Your task to perform on an android device: Set an alarm for 2pm Image 0: 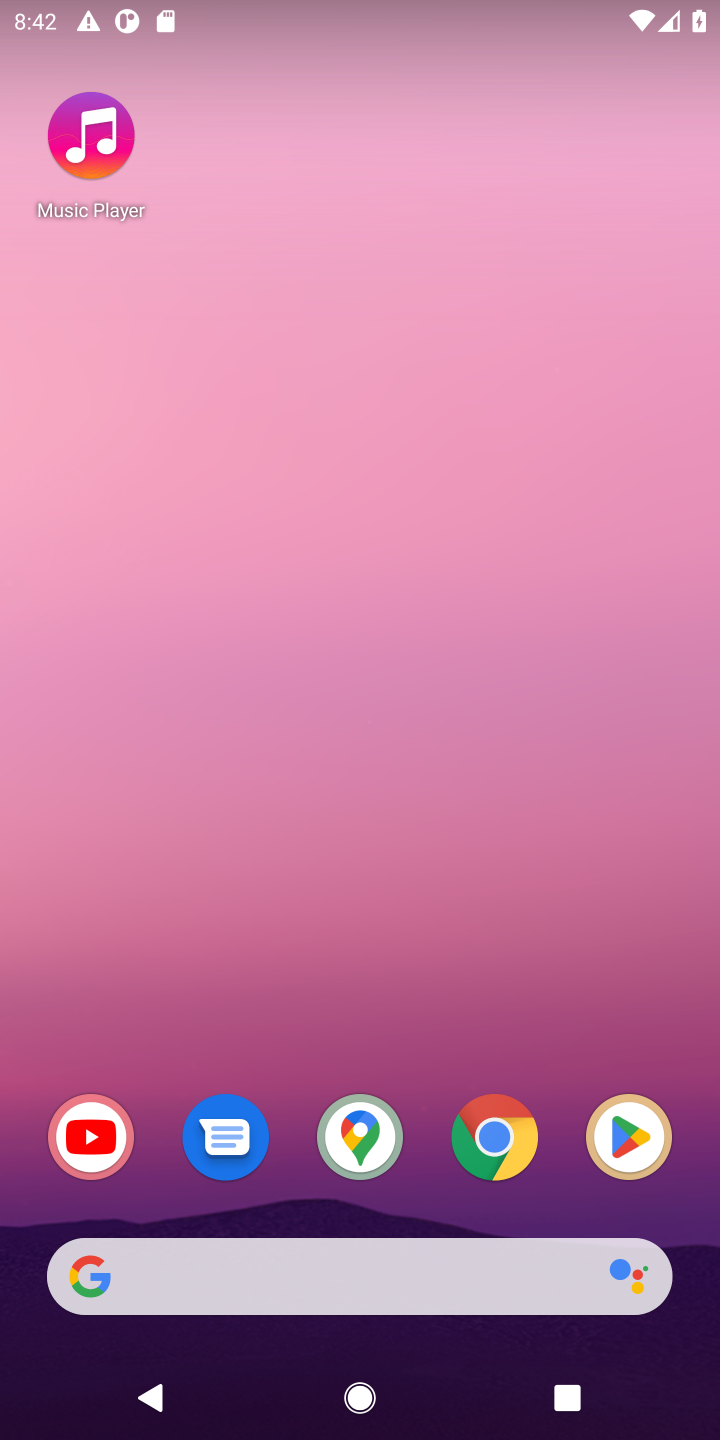
Step 0: drag from (578, 1210) to (506, 151)
Your task to perform on an android device: Set an alarm for 2pm Image 1: 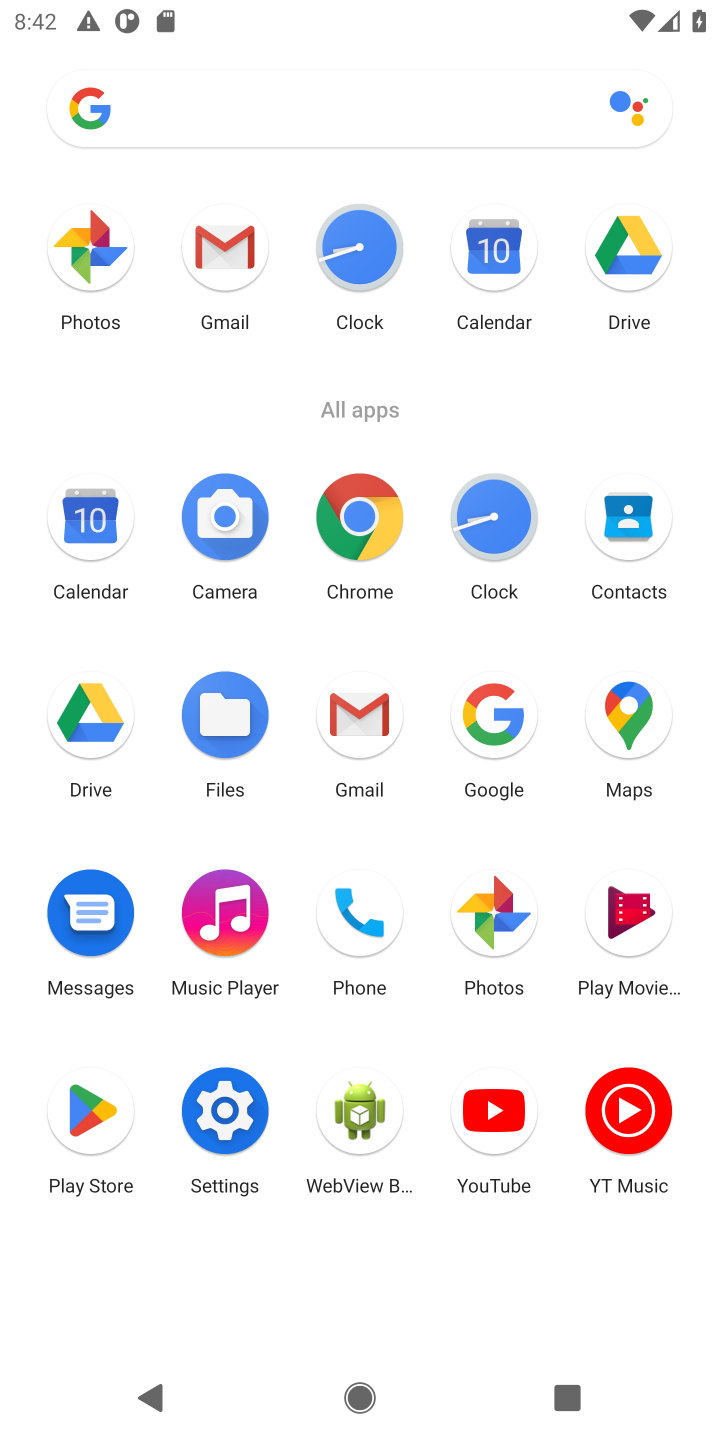
Step 1: click (487, 501)
Your task to perform on an android device: Set an alarm for 2pm Image 2: 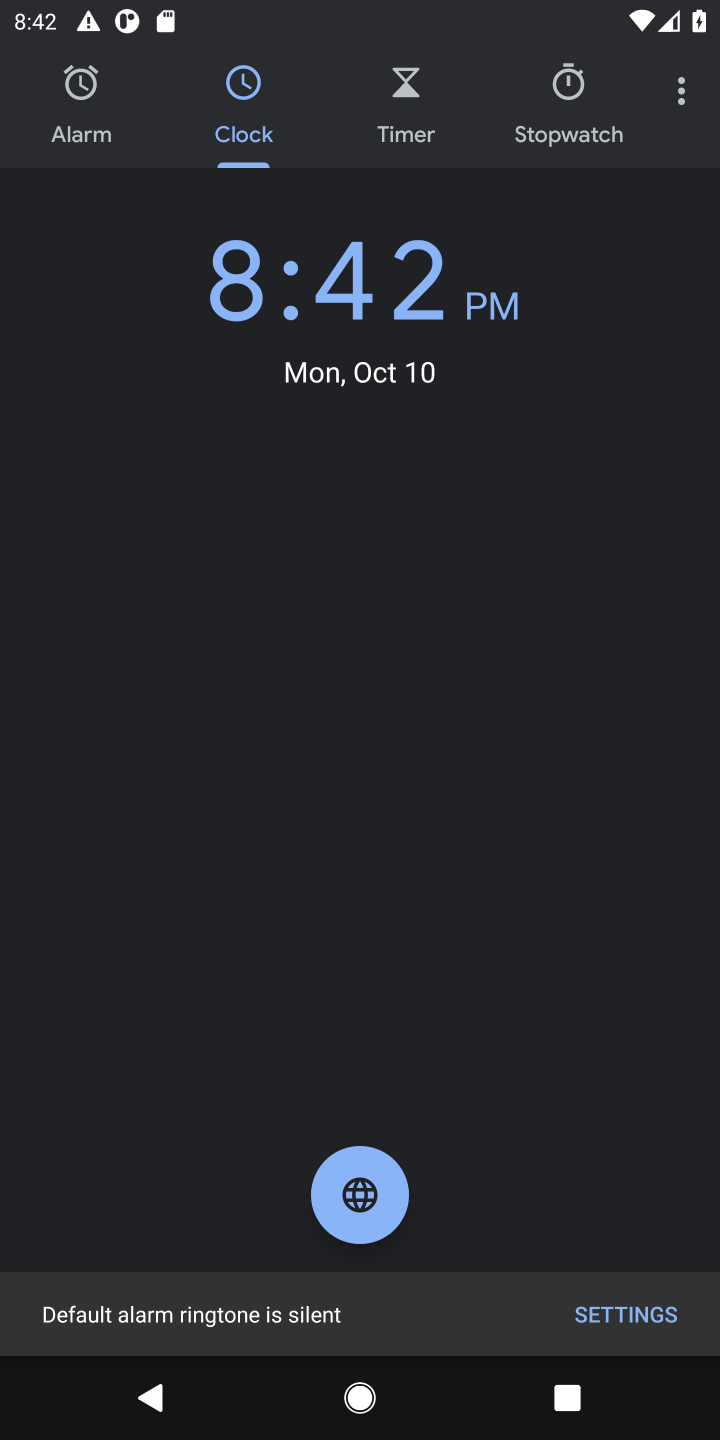
Step 2: click (84, 102)
Your task to perform on an android device: Set an alarm for 2pm Image 3: 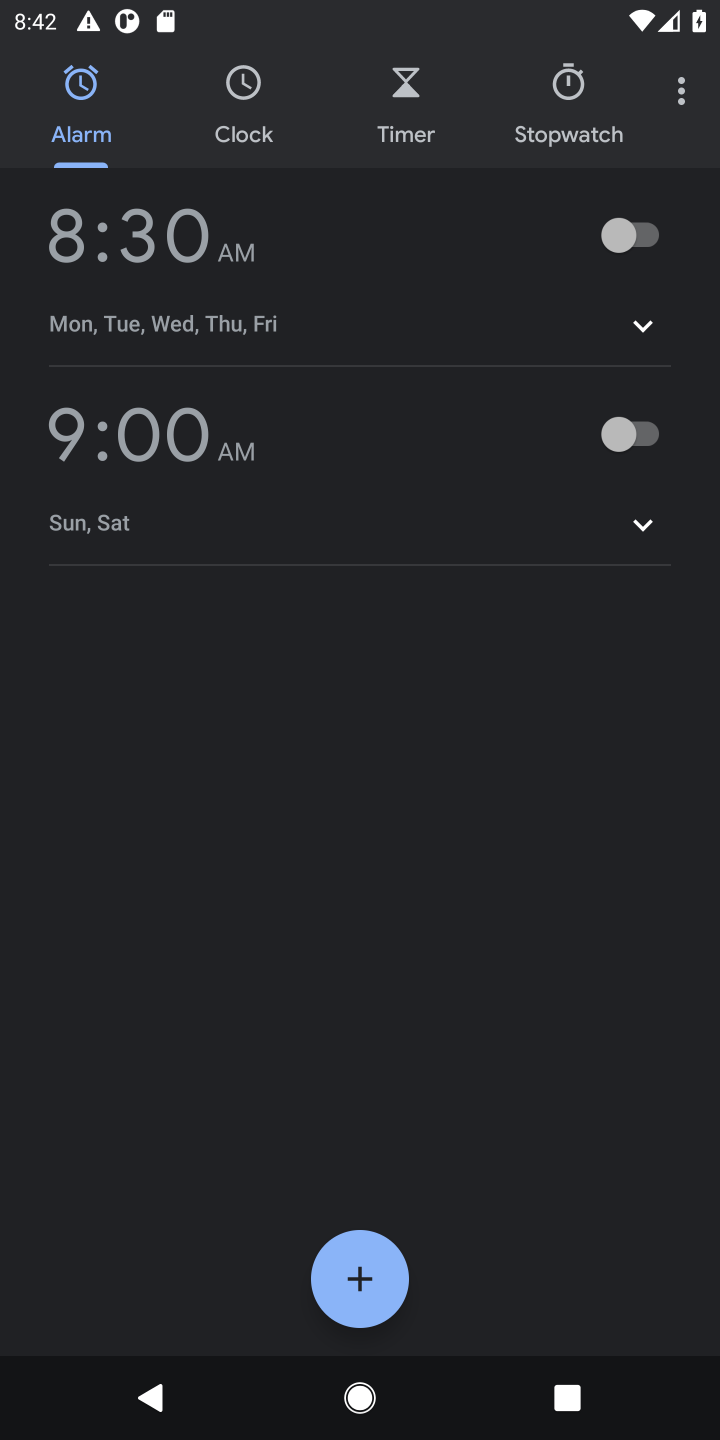
Step 3: click (104, 424)
Your task to perform on an android device: Set an alarm for 2pm Image 4: 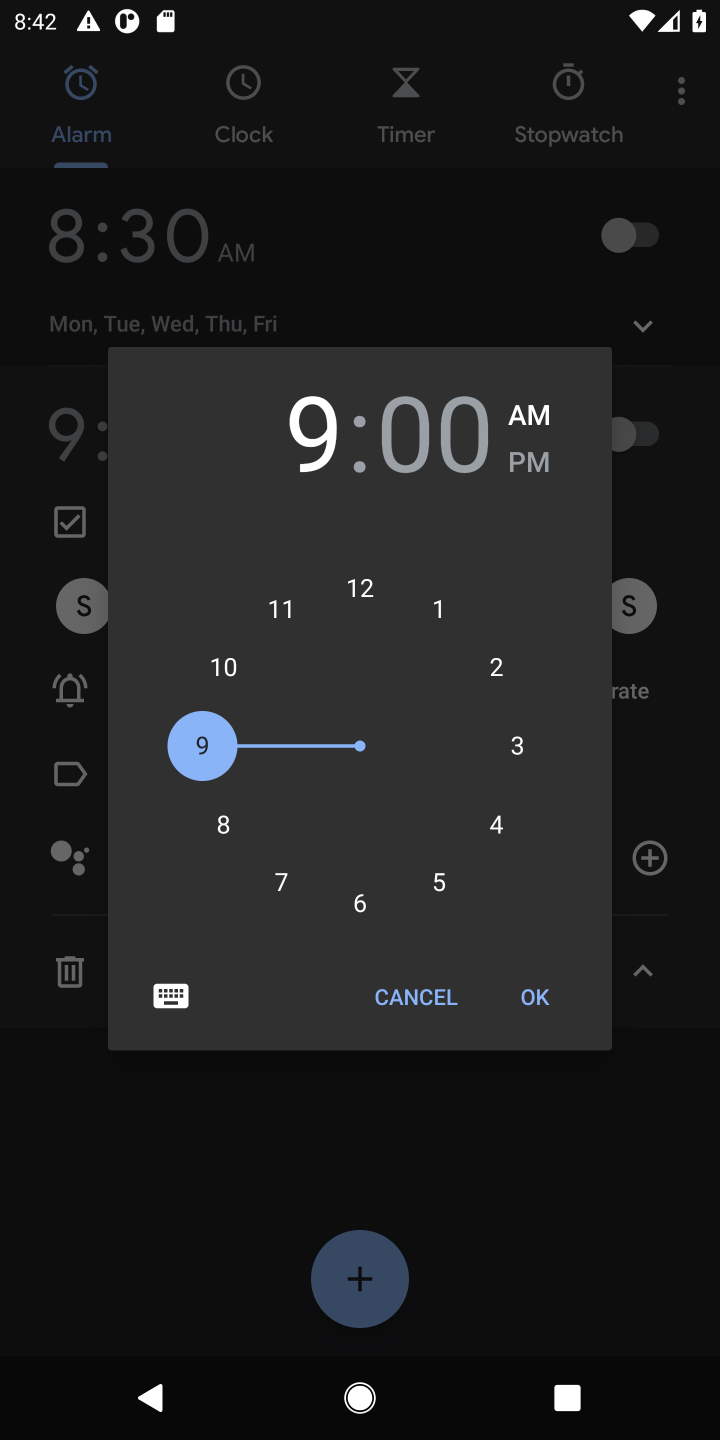
Step 4: click (483, 660)
Your task to perform on an android device: Set an alarm for 2pm Image 5: 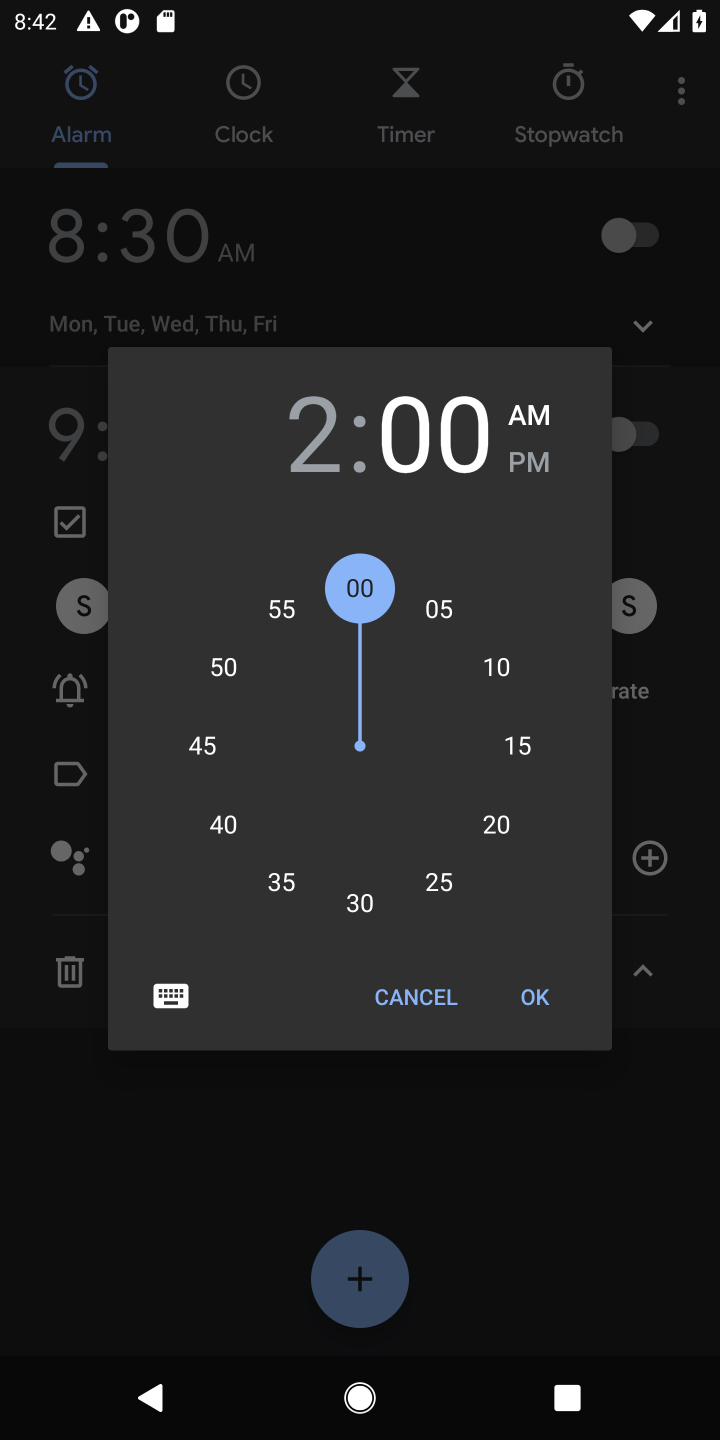
Step 5: click (353, 578)
Your task to perform on an android device: Set an alarm for 2pm Image 6: 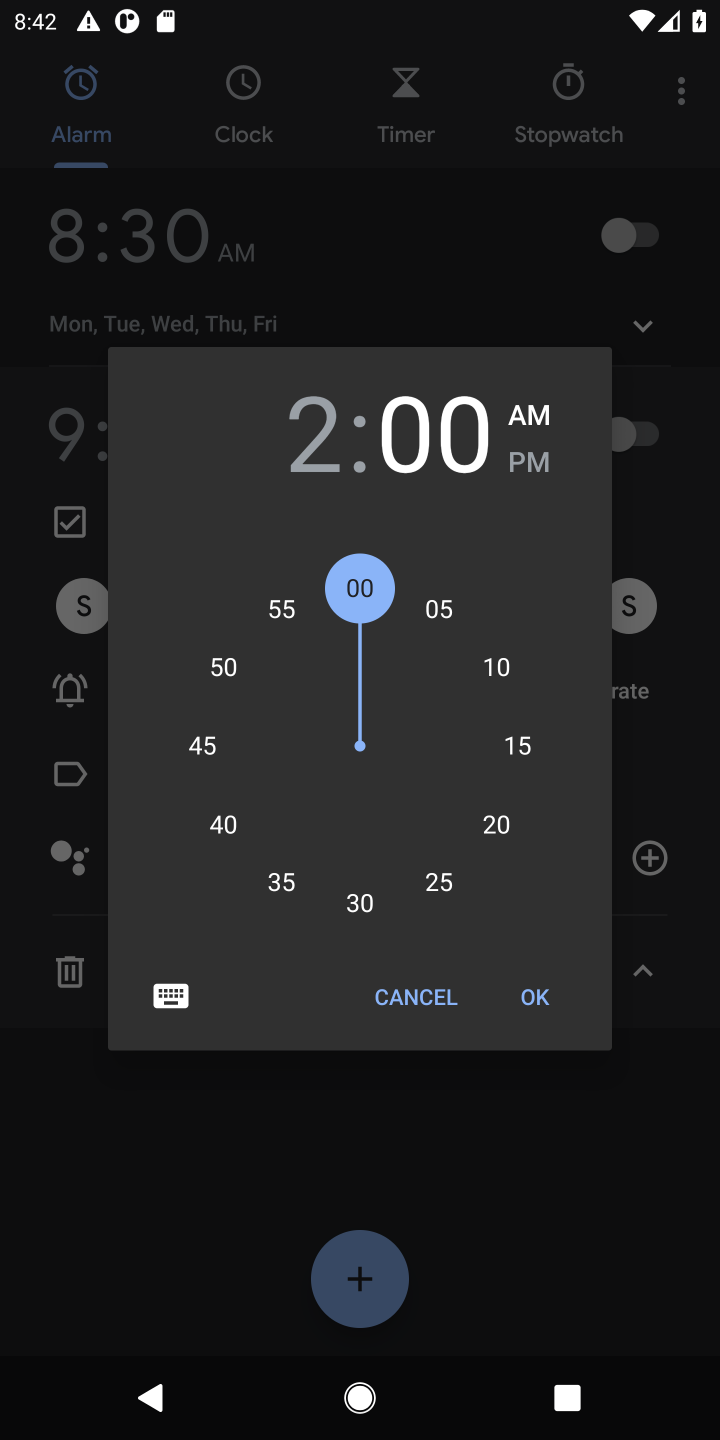
Step 6: click (524, 460)
Your task to perform on an android device: Set an alarm for 2pm Image 7: 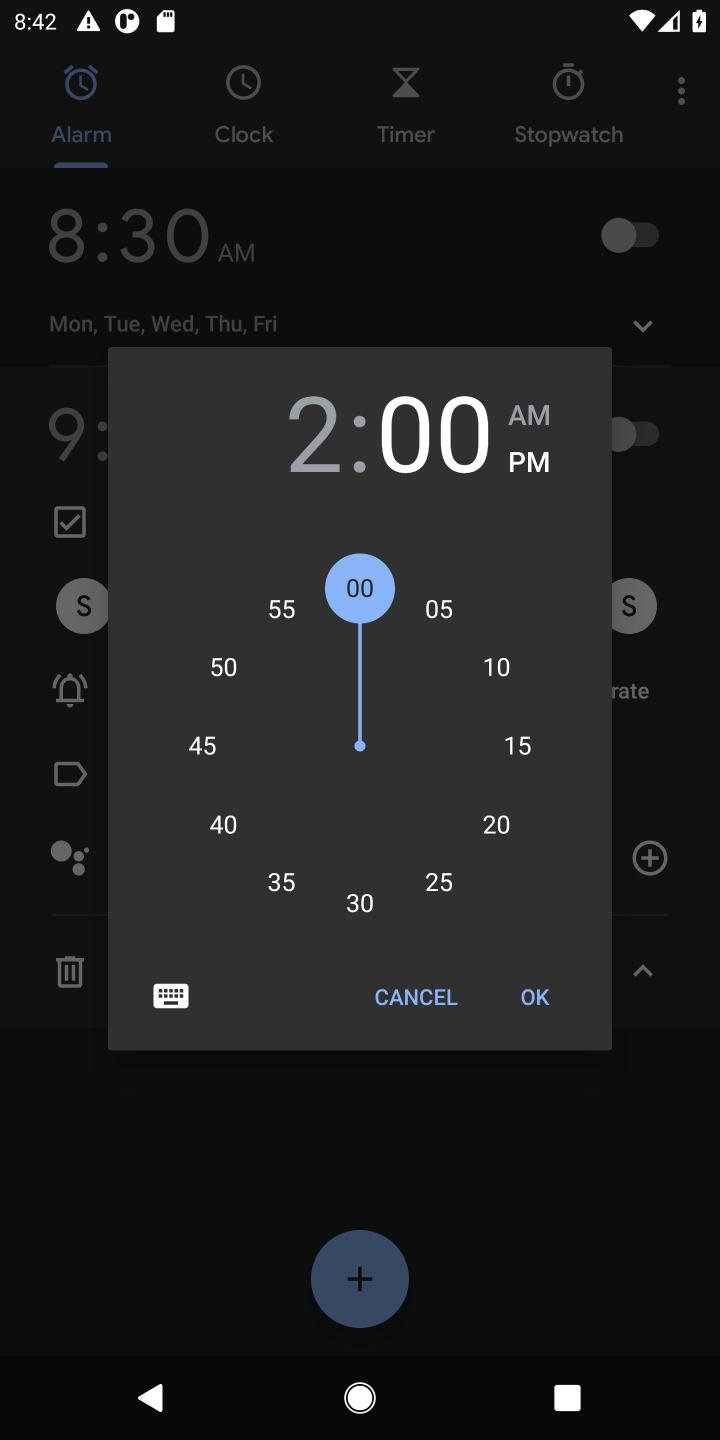
Step 7: click (528, 998)
Your task to perform on an android device: Set an alarm for 2pm Image 8: 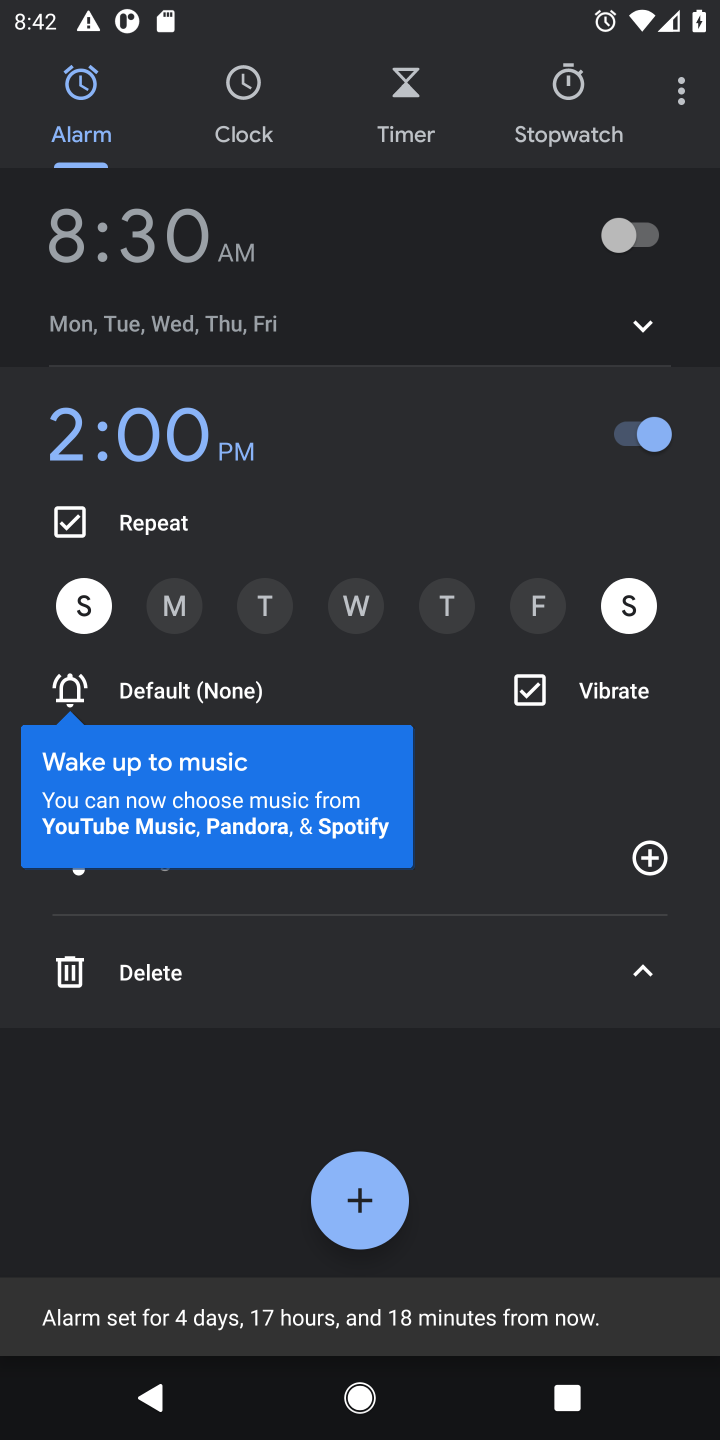
Step 8: click (165, 623)
Your task to perform on an android device: Set an alarm for 2pm Image 9: 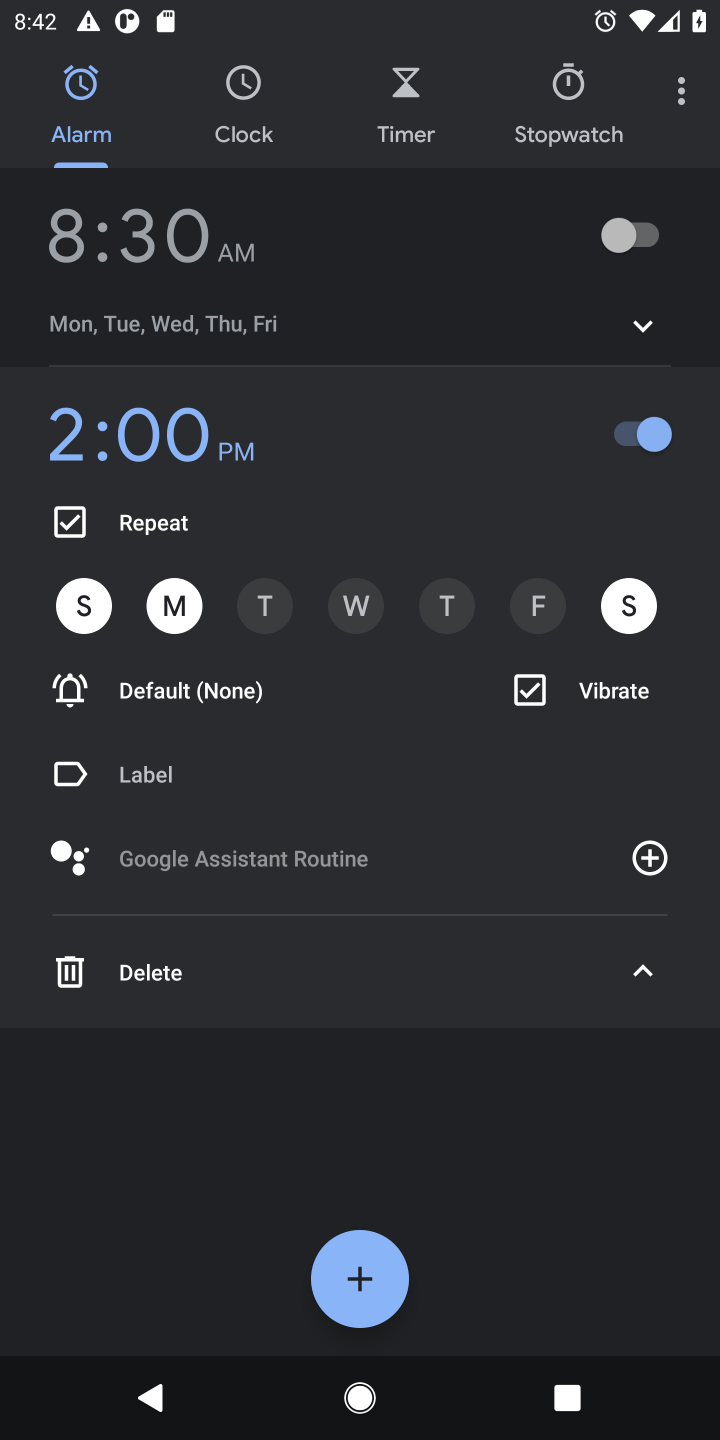
Step 9: click (270, 611)
Your task to perform on an android device: Set an alarm for 2pm Image 10: 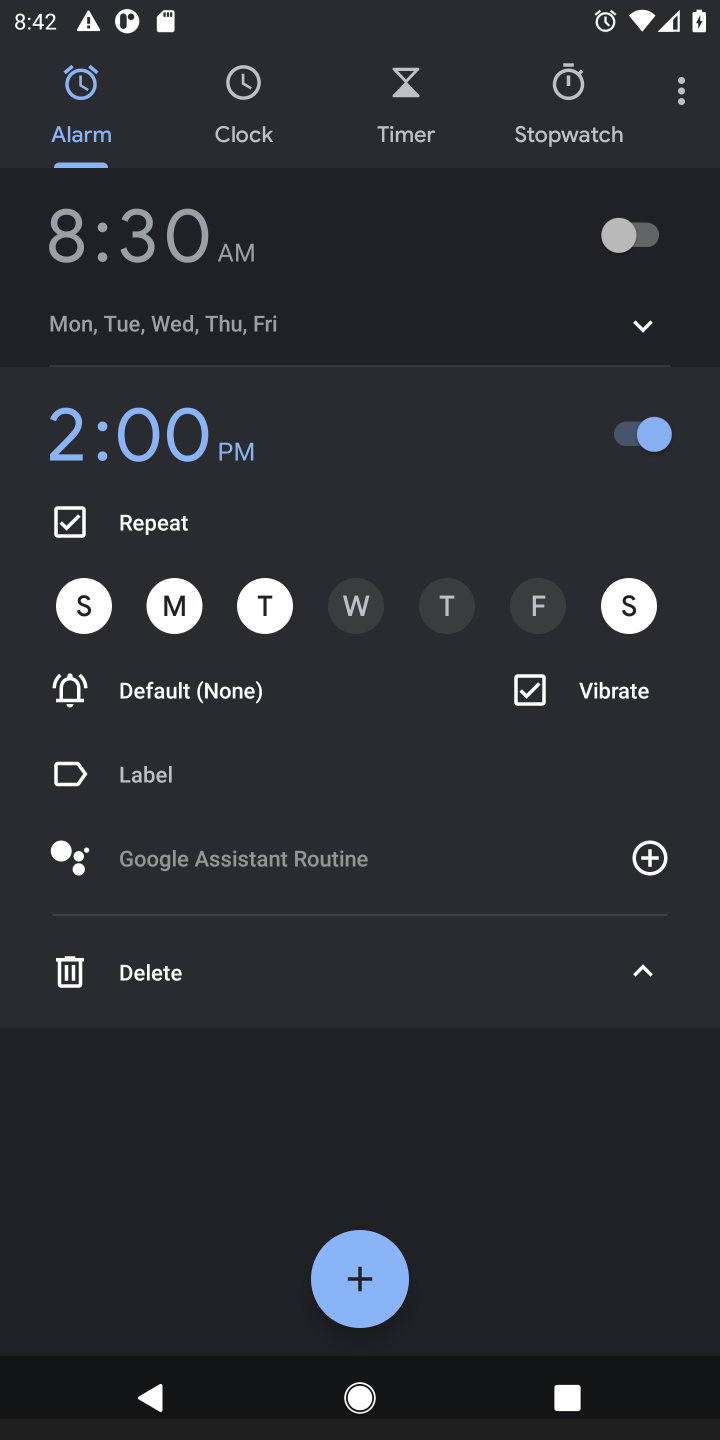
Step 10: click (356, 618)
Your task to perform on an android device: Set an alarm for 2pm Image 11: 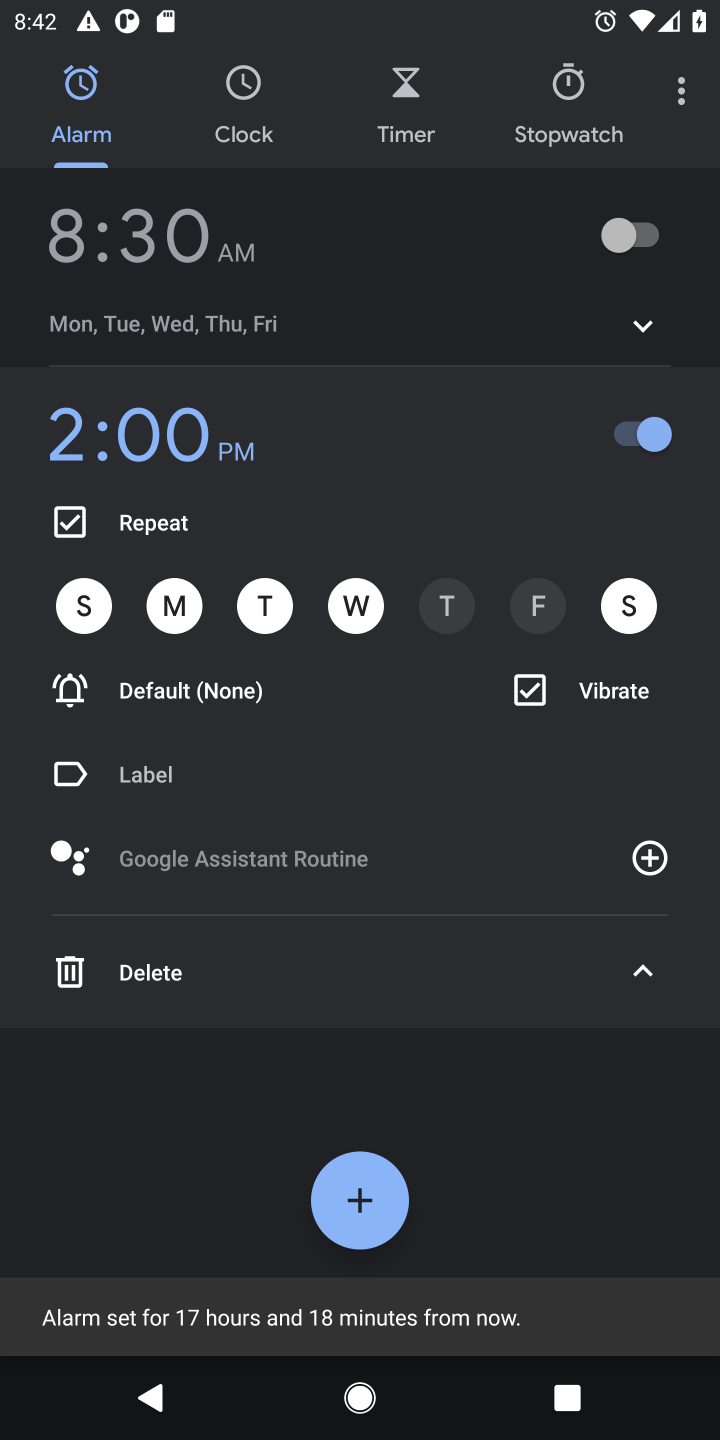
Step 11: click (438, 606)
Your task to perform on an android device: Set an alarm for 2pm Image 12: 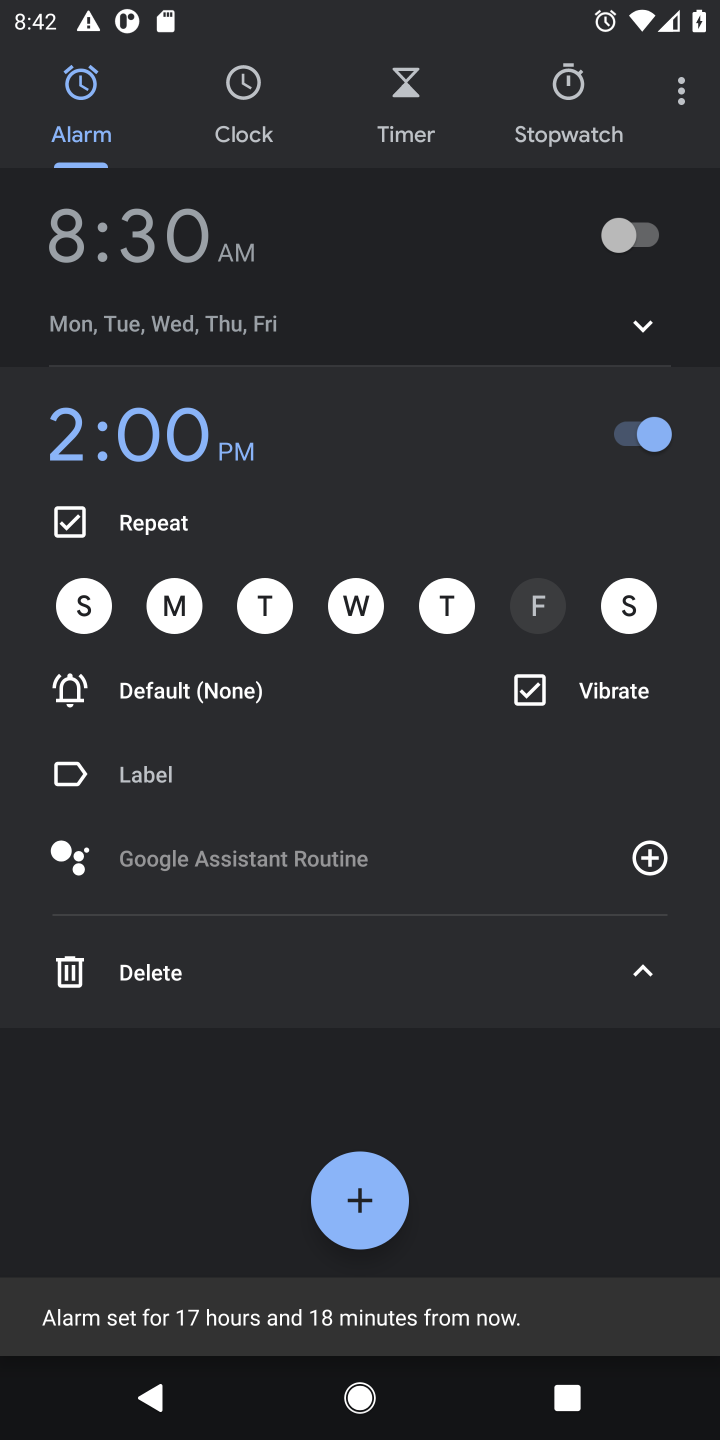
Step 12: click (528, 606)
Your task to perform on an android device: Set an alarm for 2pm Image 13: 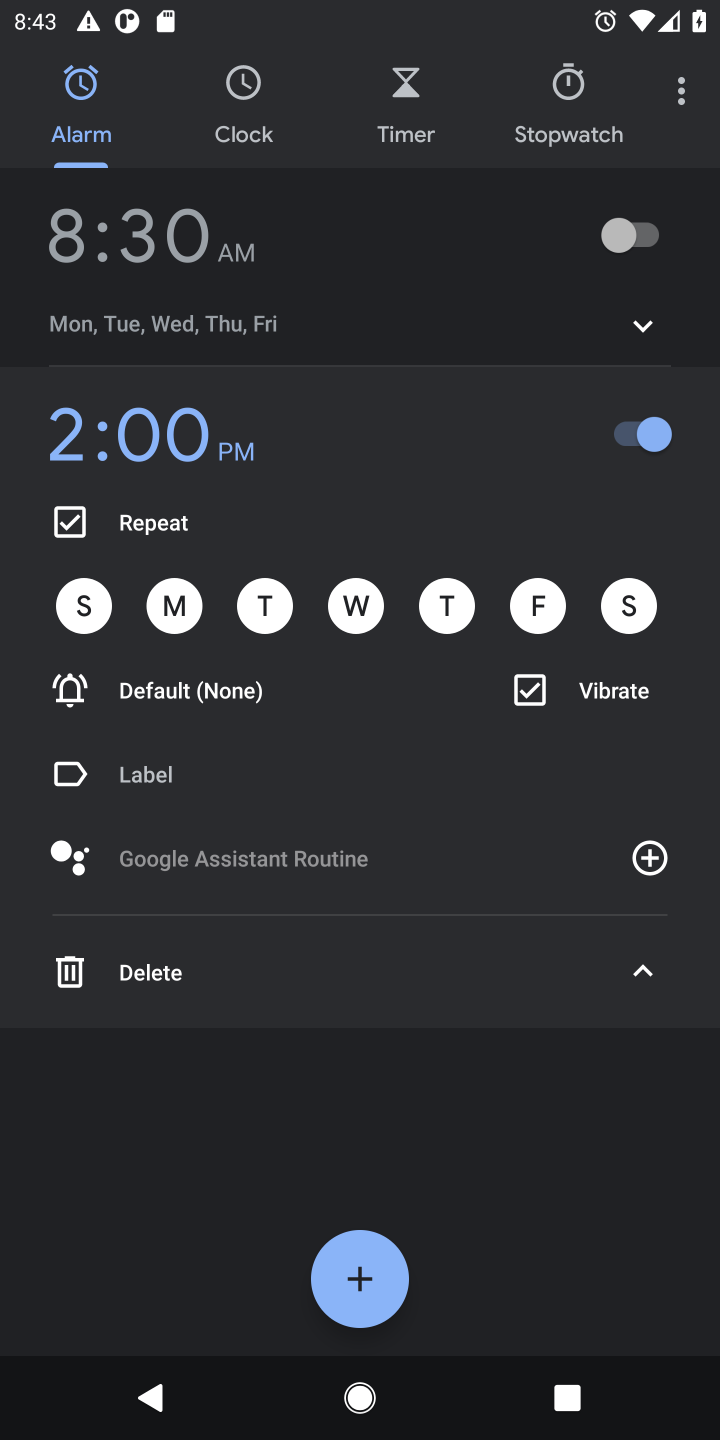
Step 13: click (648, 971)
Your task to perform on an android device: Set an alarm for 2pm Image 14: 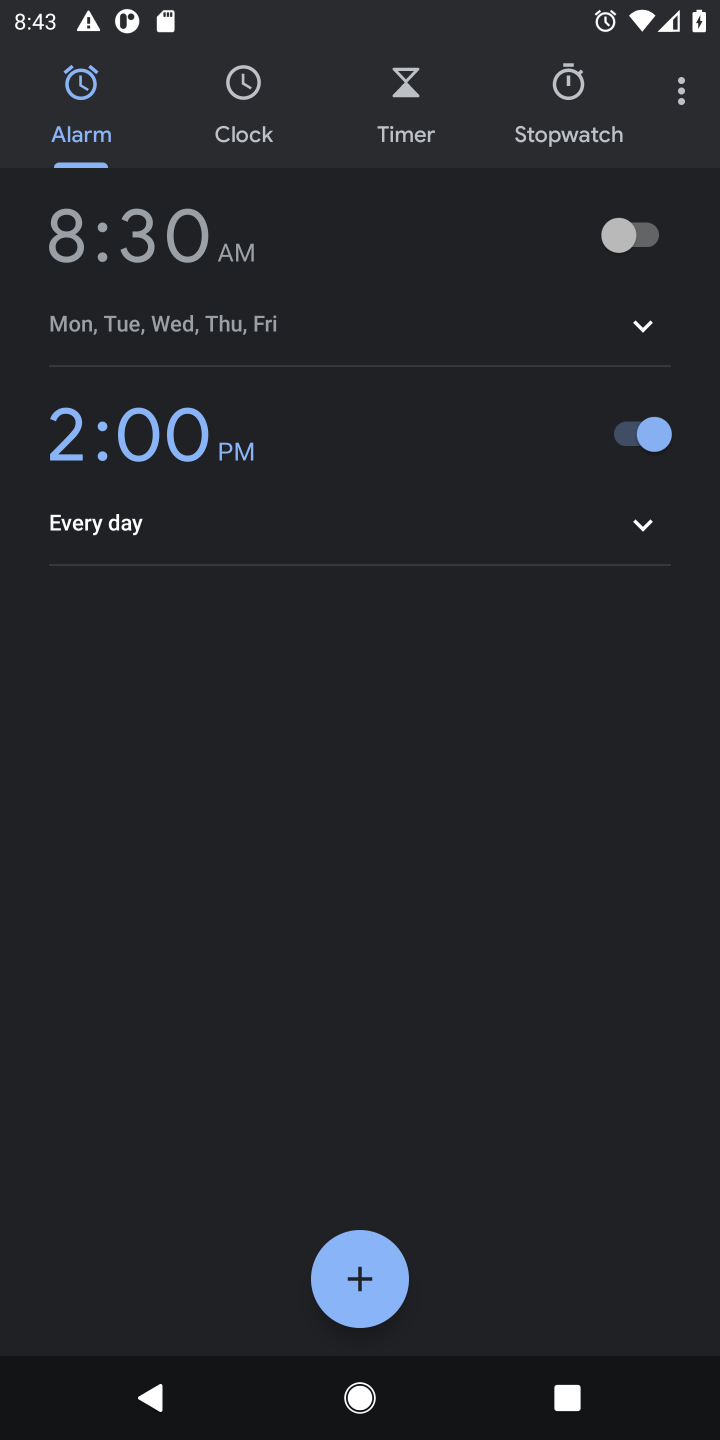
Step 14: task complete